Your task to perform on an android device: find which apps use the phone's location Image 0: 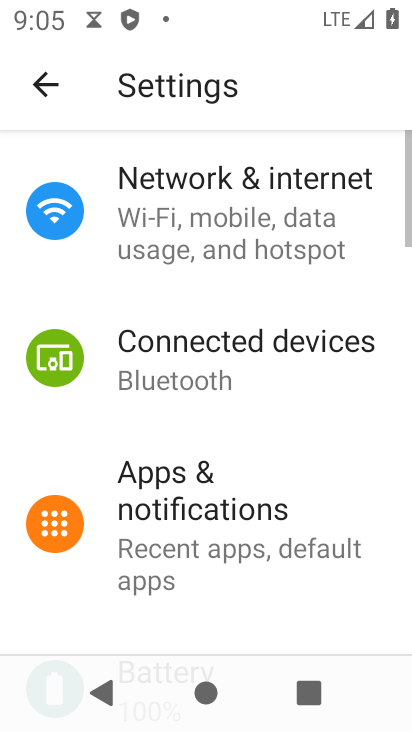
Step 0: press home button
Your task to perform on an android device: find which apps use the phone's location Image 1: 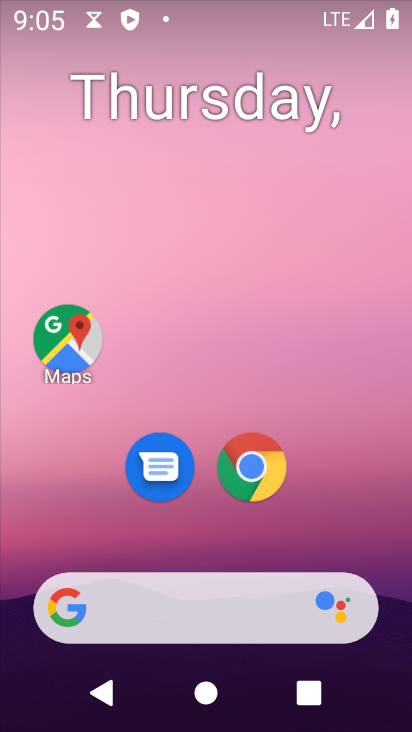
Step 1: drag from (324, 540) to (396, 102)
Your task to perform on an android device: find which apps use the phone's location Image 2: 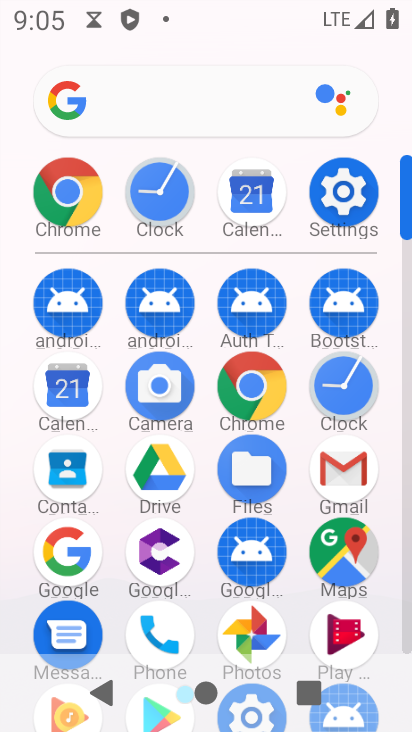
Step 2: click (335, 214)
Your task to perform on an android device: find which apps use the phone's location Image 3: 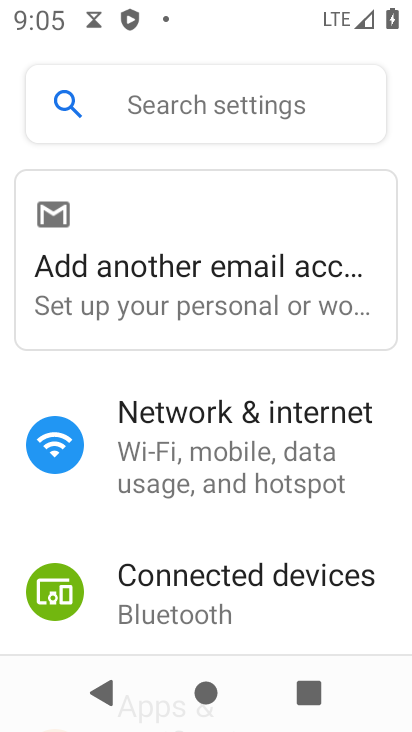
Step 3: drag from (197, 506) to (217, 422)
Your task to perform on an android device: find which apps use the phone's location Image 4: 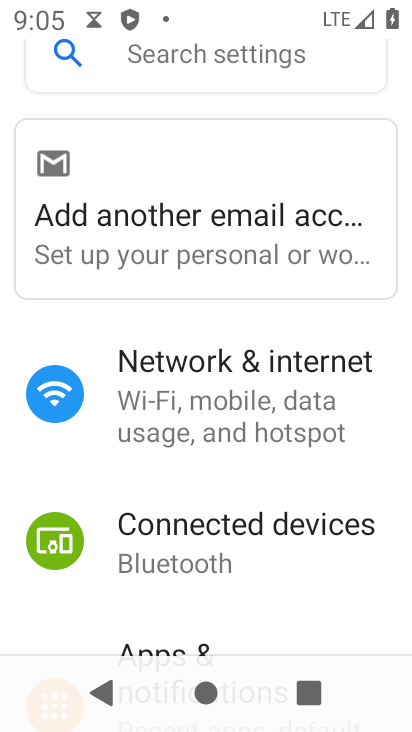
Step 4: drag from (233, 531) to (253, 417)
Your task to perform on an android device: find which apps use the phone's location Image 5: 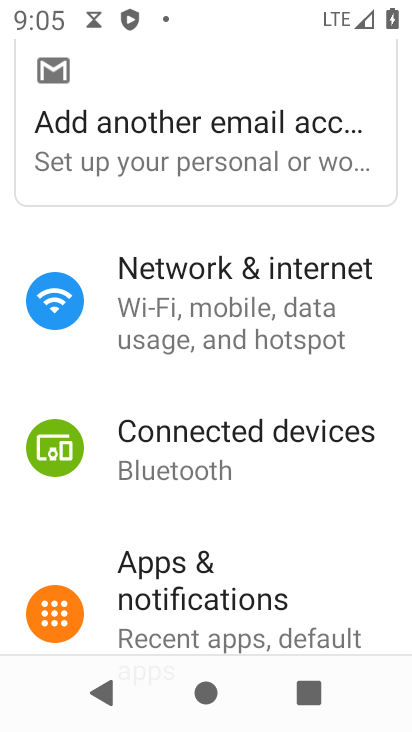
Step 5: drag from (198, 535) to (230, 420)
Your task to perform on an android device: find which apps use the phone's location Image 6: 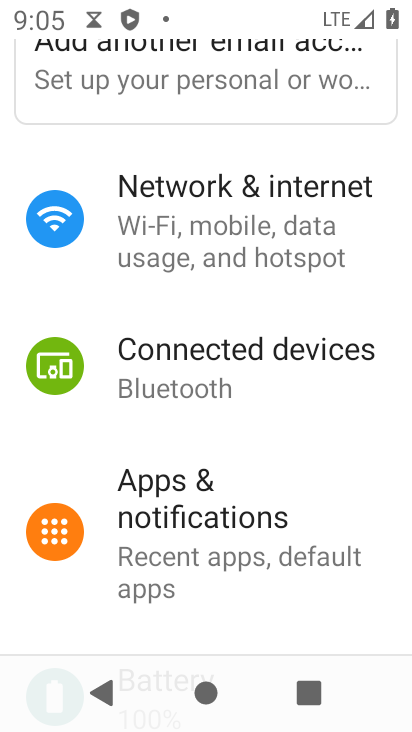
Step 6: drag from (200, 526) to (241, 379)
Your task to perform on an android device: find which apps use the phone's location Image 7: 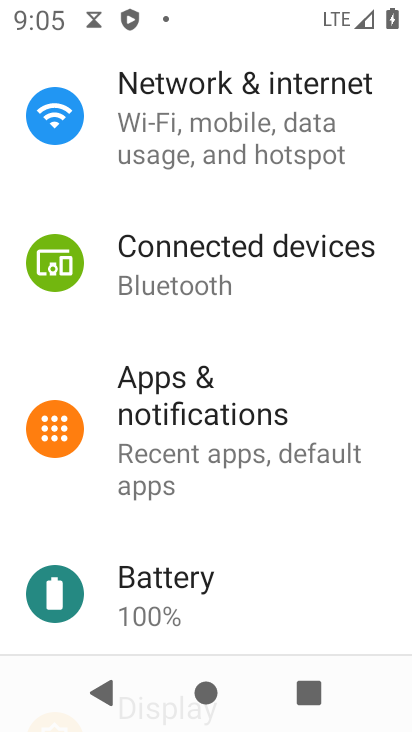
Step 7: drag from (189, 534) to (219, 425)
Your task to perform on an android device: find which apps use the phone's location Image 8: 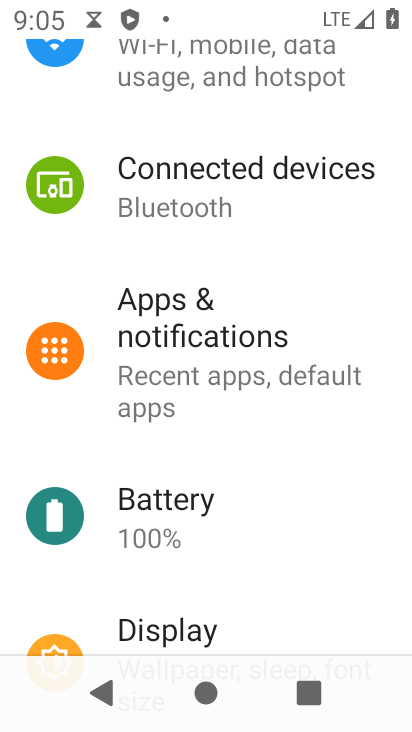
Step 8: drag from (178, 589) to (206, 468)
Your task to perform on an android device: find which apps use the phone's location Image 9: 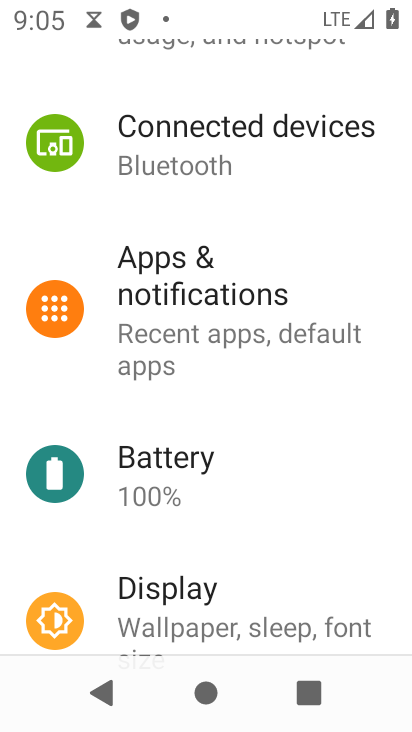
Step 9: drag from (180, 605) to (191, 519)
Your task to perform on an android device: find which apps use the phone's location Image 10: 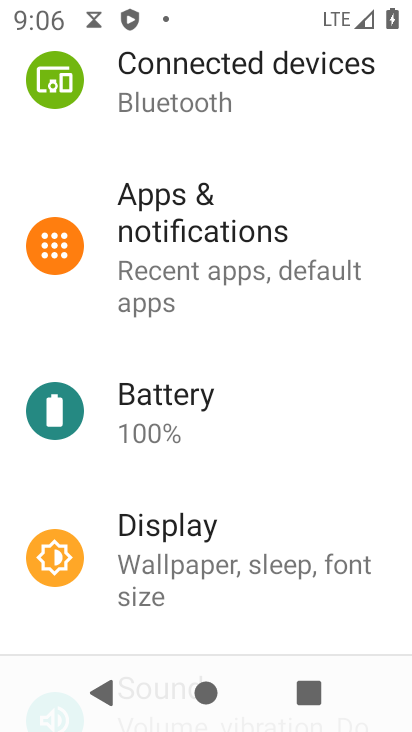
Step 10: drag from (178, 595) to (175, 514)
Your task to perform on an android device: find which apps use the phone's location Image 11: 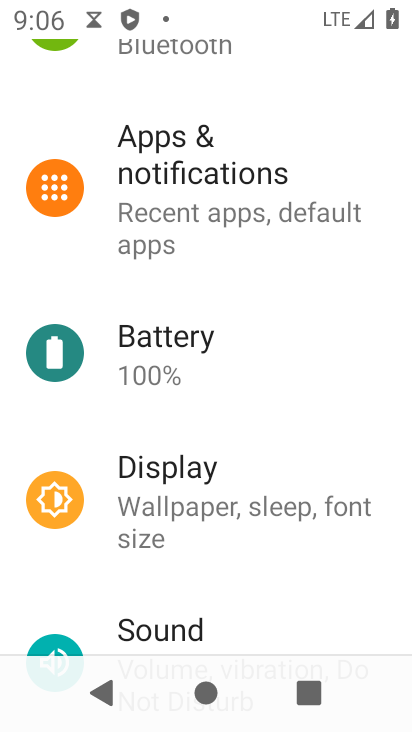
Step 11: drag from (178, 590) to (175, 499)
Your task to perform on an android device: find which apps use the phone's location Image 12: 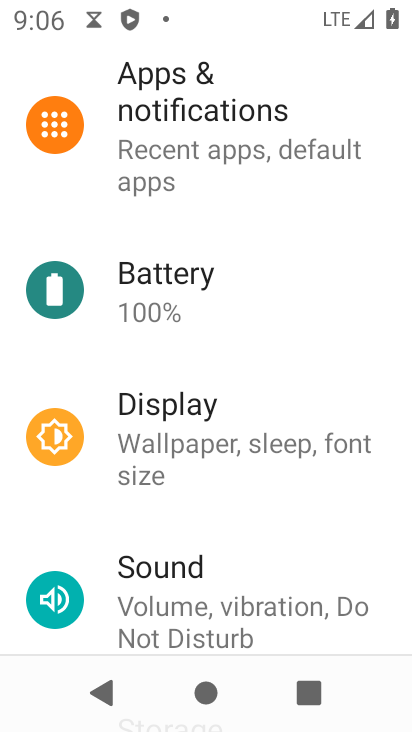
Step 12: drag from (185, 572) to (203, 465)
Your task to perform on an android device: find which apps use the phone's location Image 13: 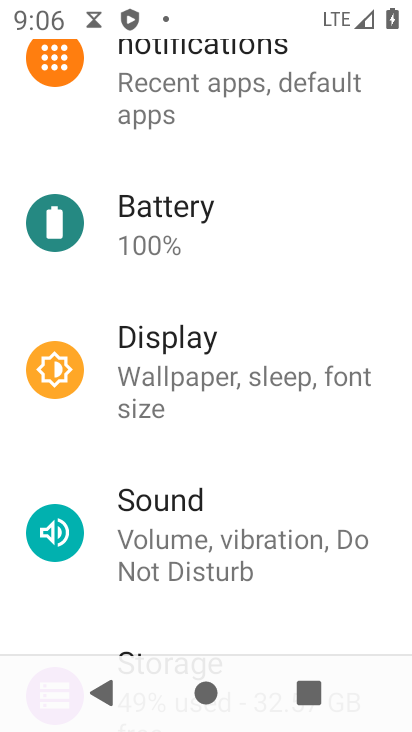
Step 13: drag from (211, 570) to (204, 472)
Your task to perform on an android device: find which apps use the phone's location Image 14: 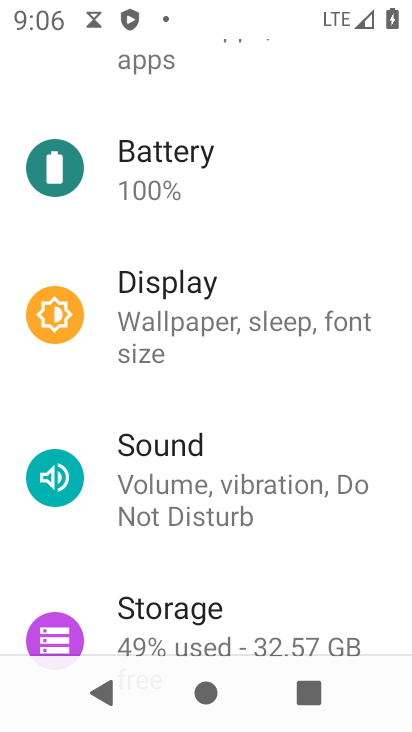
Step 14: drag from (193, 587) to (205, 483)
Your task to perform on an android device: find which apps use the phone's location Image 15: 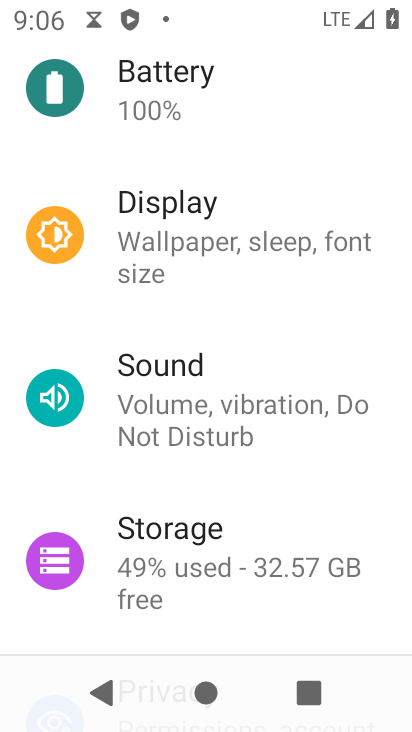
Step 15: drag from (219, 584) to (240, 499)
Your task to perform on an android device: find which apps use the phone's location Image 16: 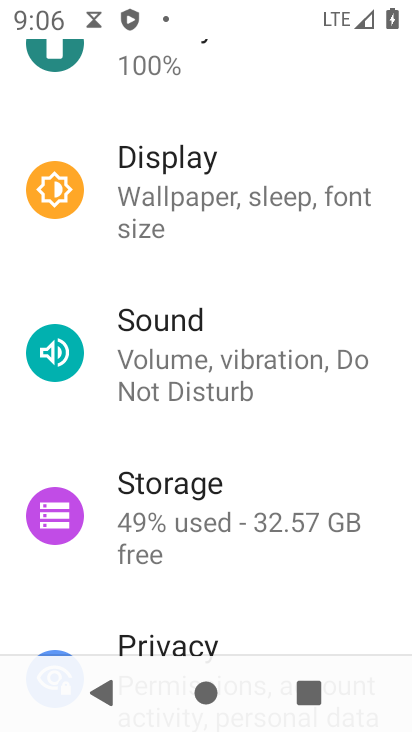
Step 16: drag from (239, 576) to (259, 465)
Your task to perform on an android device: find which apps use the phone's location Image 17: 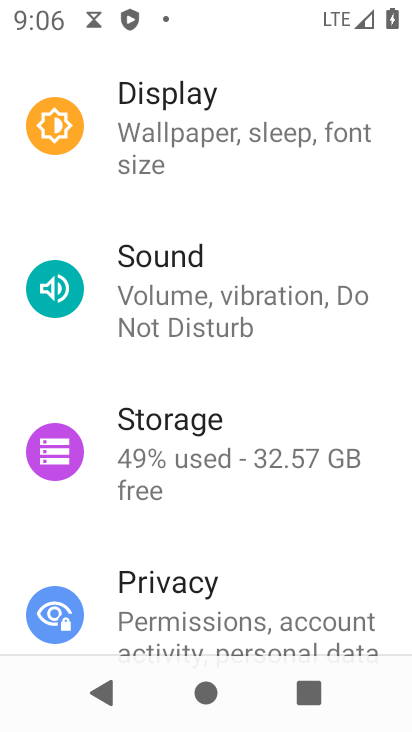
Step 17: drag from (214, 608) to (225, 493)
Your task to perform on an android device: find which apps use the phone's location Image 18: 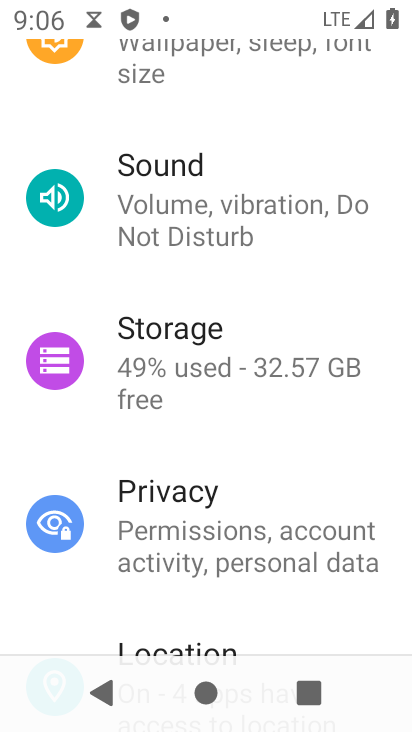
Step 18: drag from (208, 562) to (202, 475)
Your task to perform on an android device: find which apps use the phone's location Image 19: 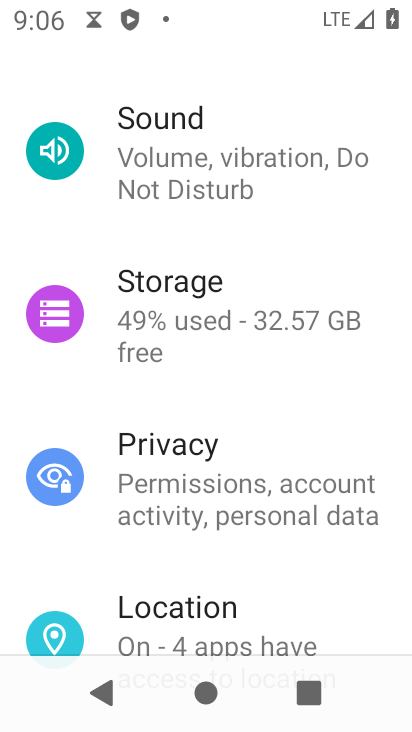
Step 19: click (185, 603)
Your task to perform on an android device: find which apps use the phone's location Image 20: 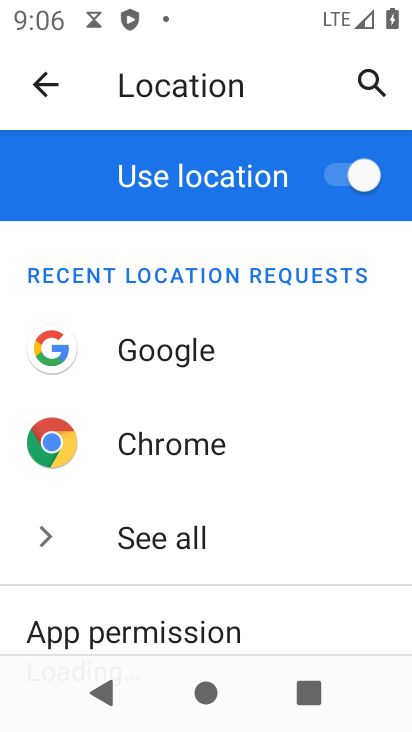
Step 20: click (185, 630)
Your task to perform on an android device: find which apps use the phone's location Image 21: 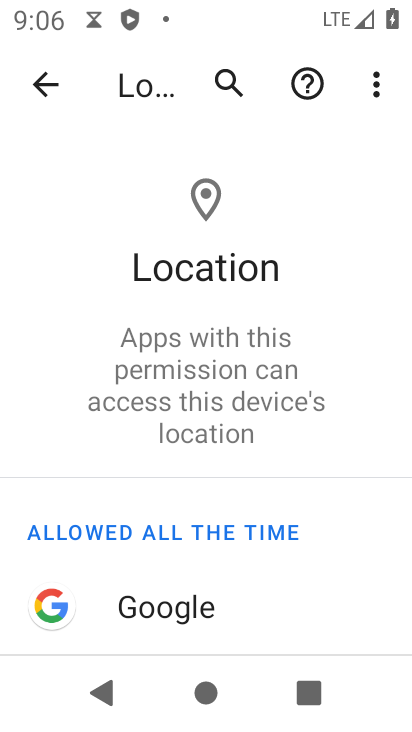
Step 21: task complete